Your task to perform on an android device: turn on showing notifications on the lock screen Image 0: 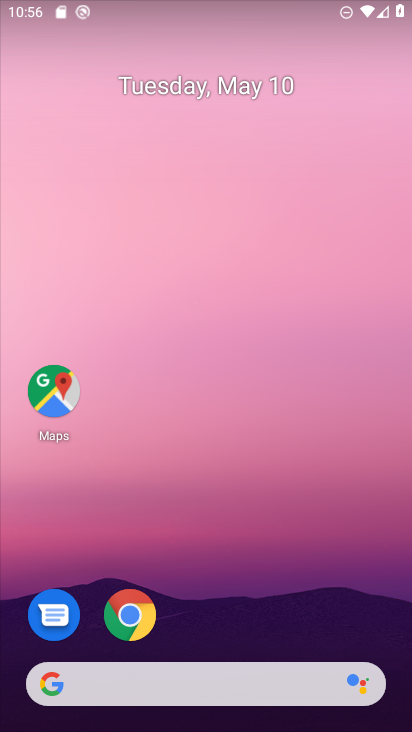
Step 0: drag from (211, 602) to (262, 194)
Your task to perform on an android device: turn on showing notifications on the lock screen Image 1: 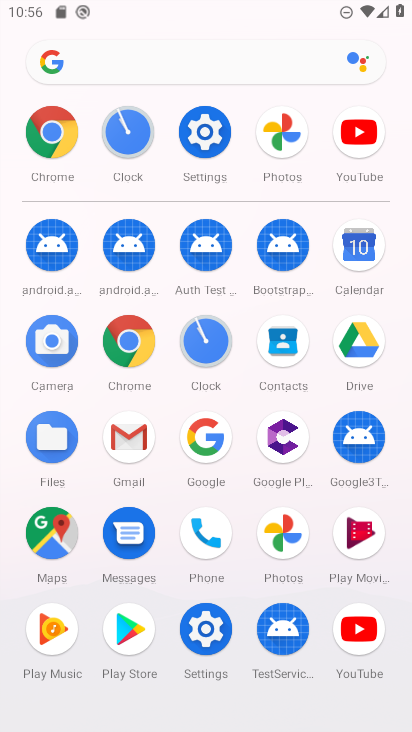
Step 1: click (194, 141)
Your task to perform on an android device: turn on showing notifications on the lock screen Image 2: 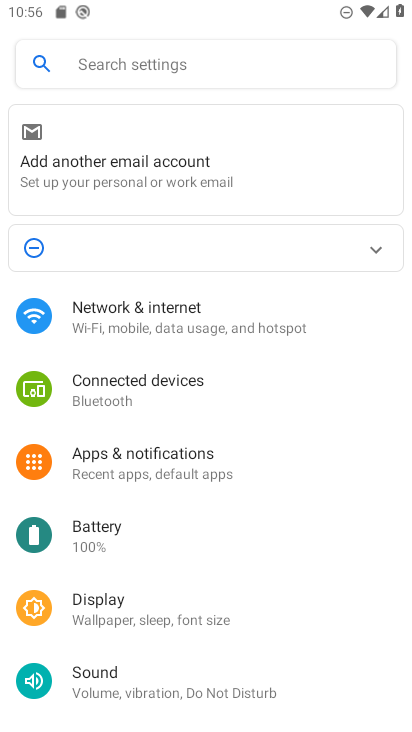
Step 2: click (165, 460)
Your task to perform on an android device: turn on showing notifications on the lock screen Image 3: 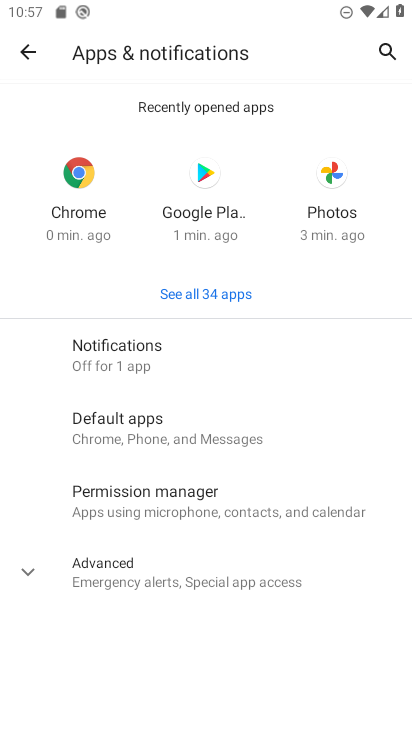
Step 3: click (155, 358)
Your task to perform on an android device: turn on showing notifications on the lock screen Image 4: 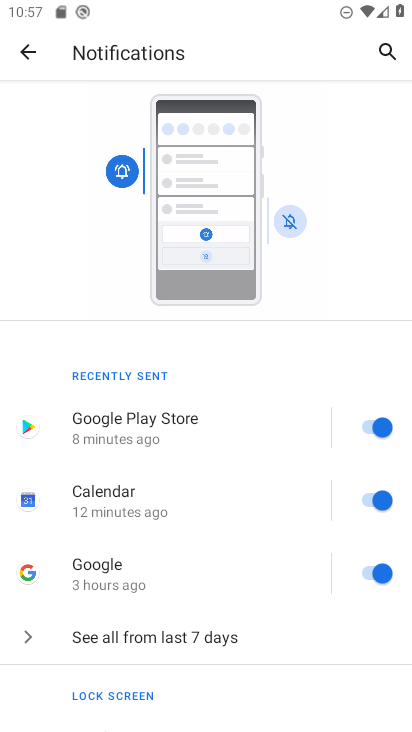
Step 4: drag from (182, 624) to (236, 300)
Your task to perform on an android device: turn on showing notifications on the lock screen Image 5: 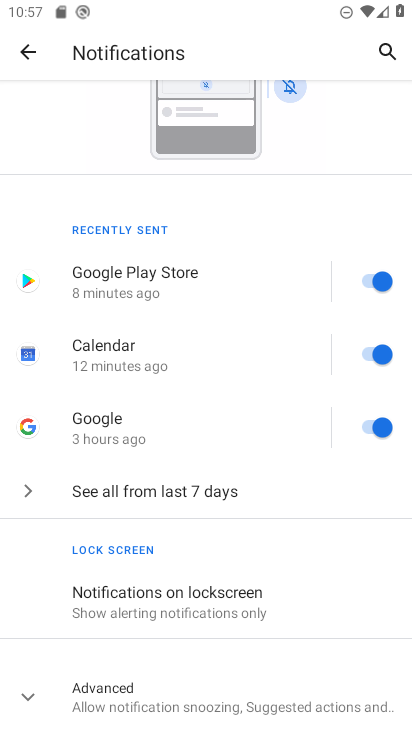
Step 5: drag from (210, 611) to (221, 210)
Your task to perform on an android device: turn on showing notifications on the lock screen Image 6: 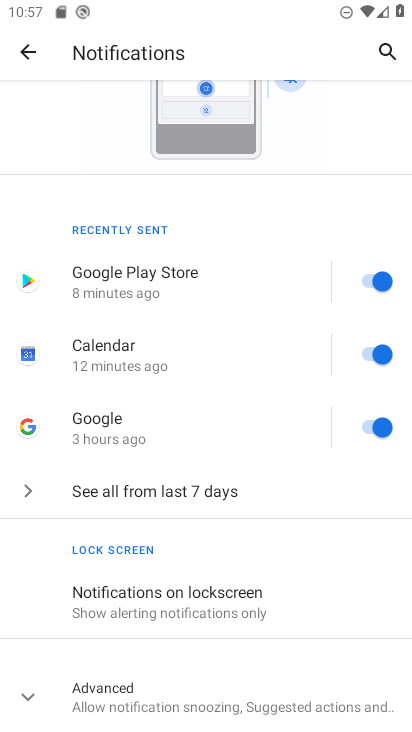
Step 6: drag from (261, 667) to (249, 404)
Your task to perform on an android device: turn on showing notifications on the lock screen Image 7: 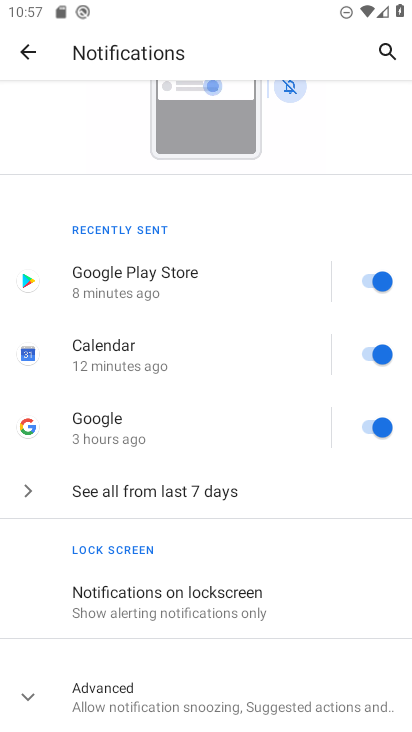
Step 7: click (200, 609)
Your task to perform on an android device: turn on showing notifications on the lock screen Image 8: 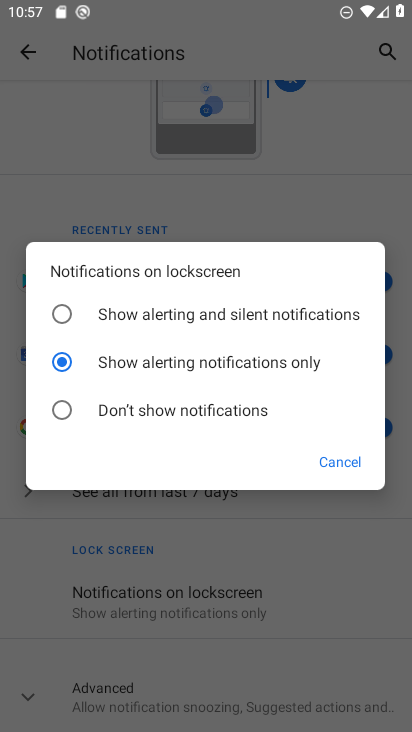
Step 8: click (249, 364)
Your task to perform on an android device: turn on showing notifications on the lock screen Image 9: 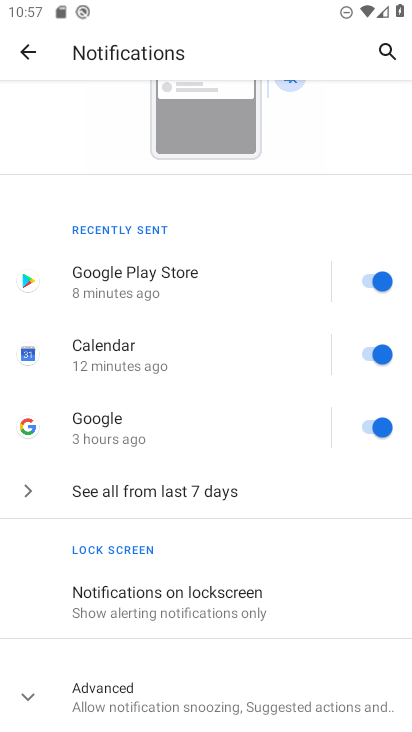
Step 9: task complete